Your task to perform on an android device: Empty the shopping cart on amazon. Add "corsair k70" to the cart on amazon Image 0: 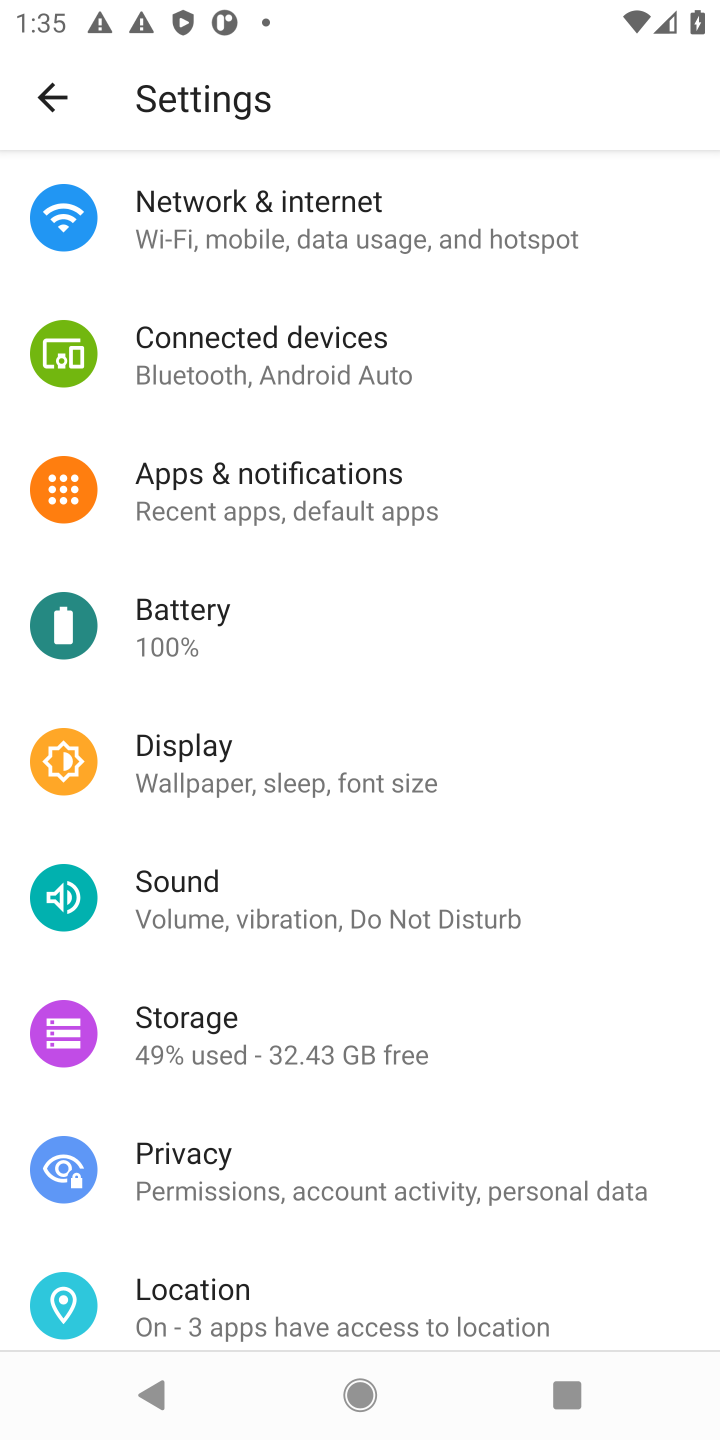
Step 0: press home button
Your task to perform on an android device: Empty the shopping cart on amazon. Add "corsair k70" to the cart on amazon Image 1: 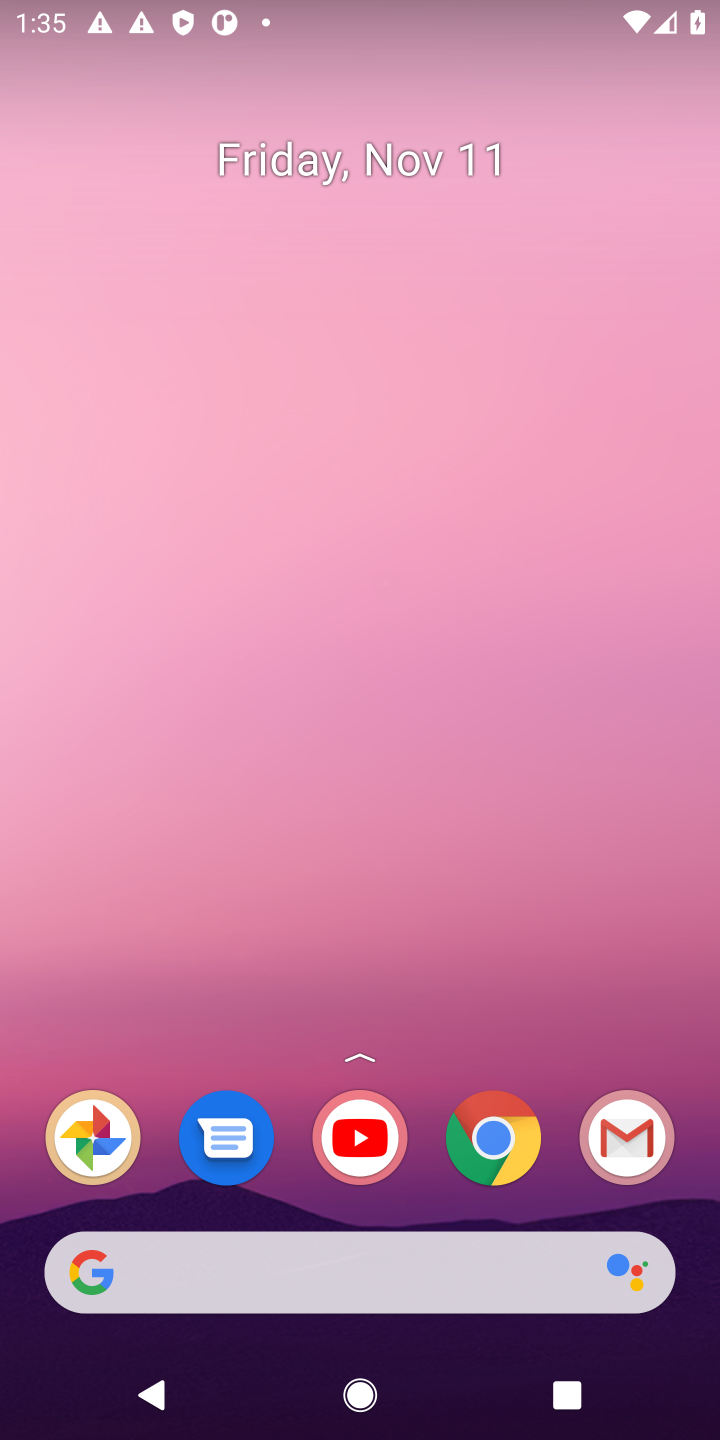
Step 1: click (506, 1140)
Your task to perform on an android device: Empty the shopping cart on amazon. Add "corsair k70" to the cart on amazon Image 2: 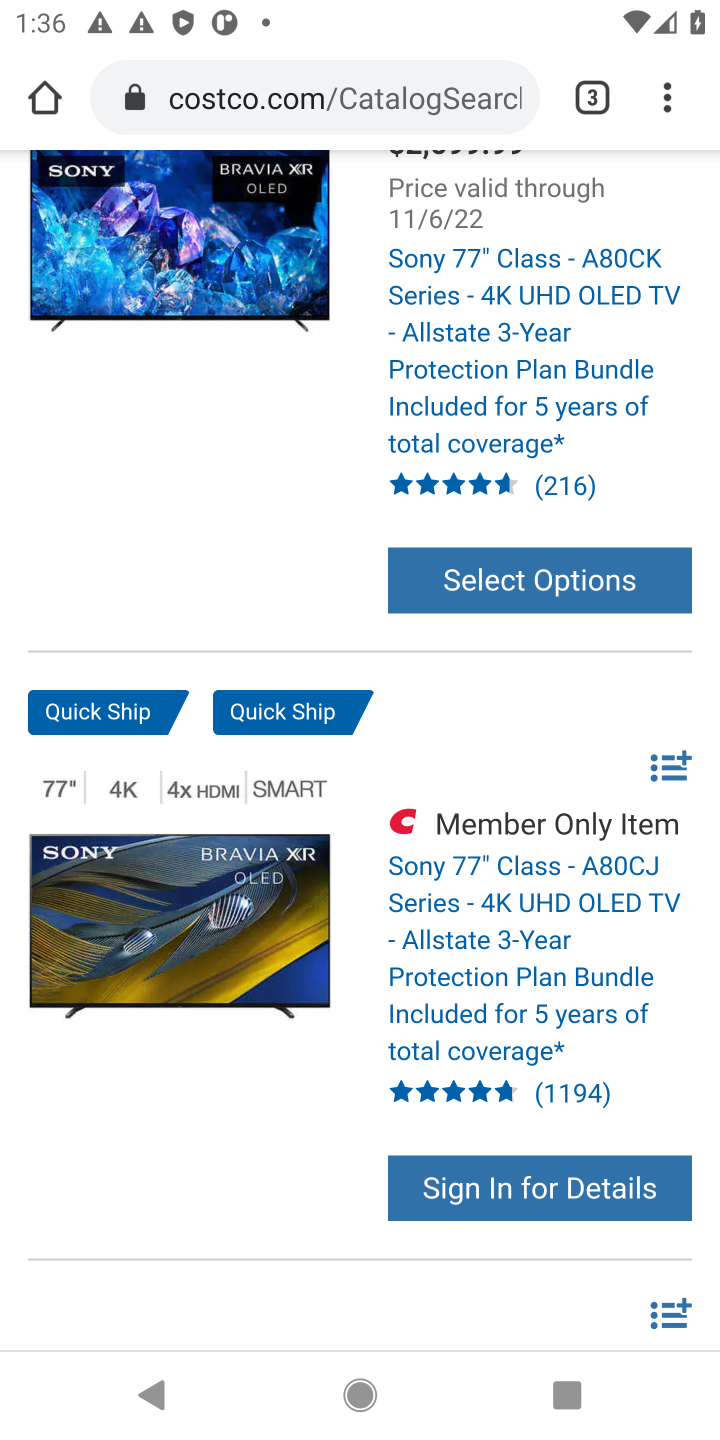
Step 2: click (602, 97)
Your task to perform on an android device: Empty the shopping cart on amazon. Add "corsair k70" to the cart on amazon Image 3: 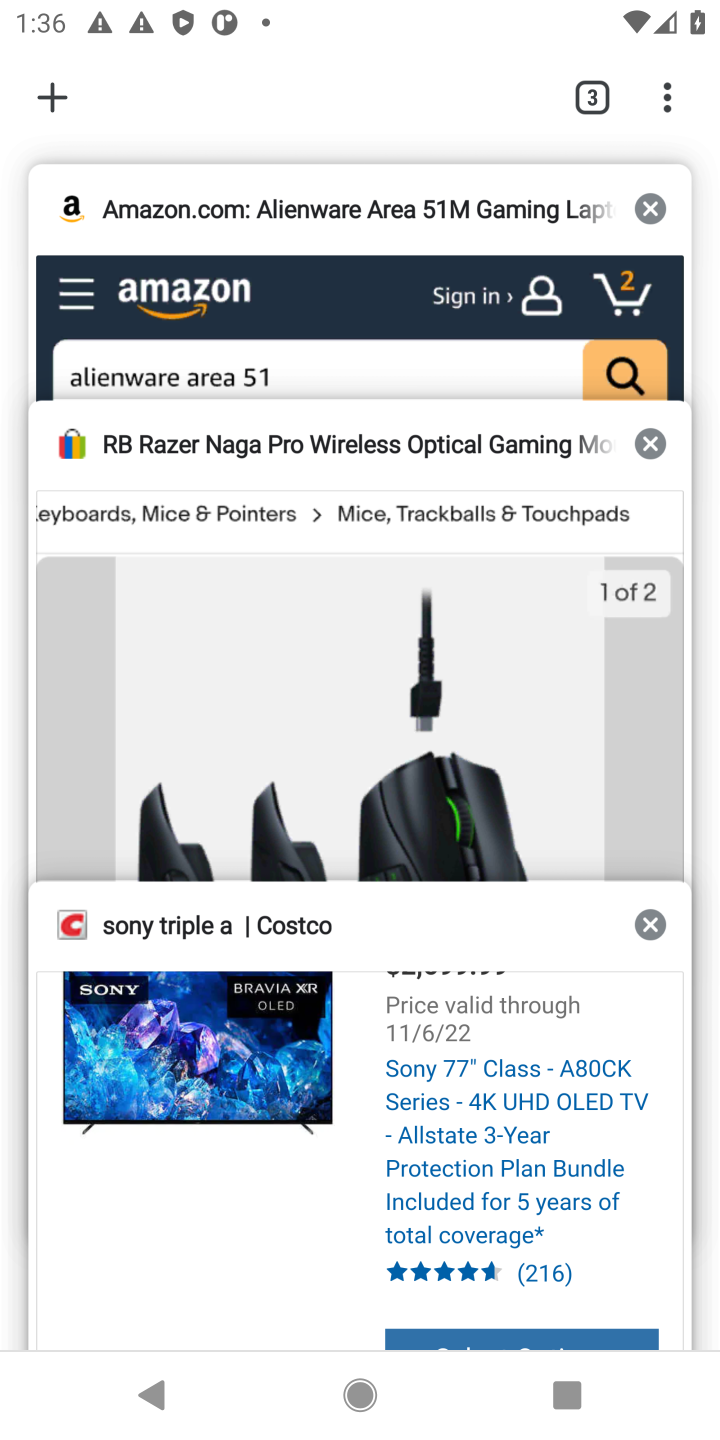
Step 3: click (448, 294)
Your task to perform on an android device: Empty the shopping cart on amazon. Add "corsair k70" to the cart on amazon Image 4: 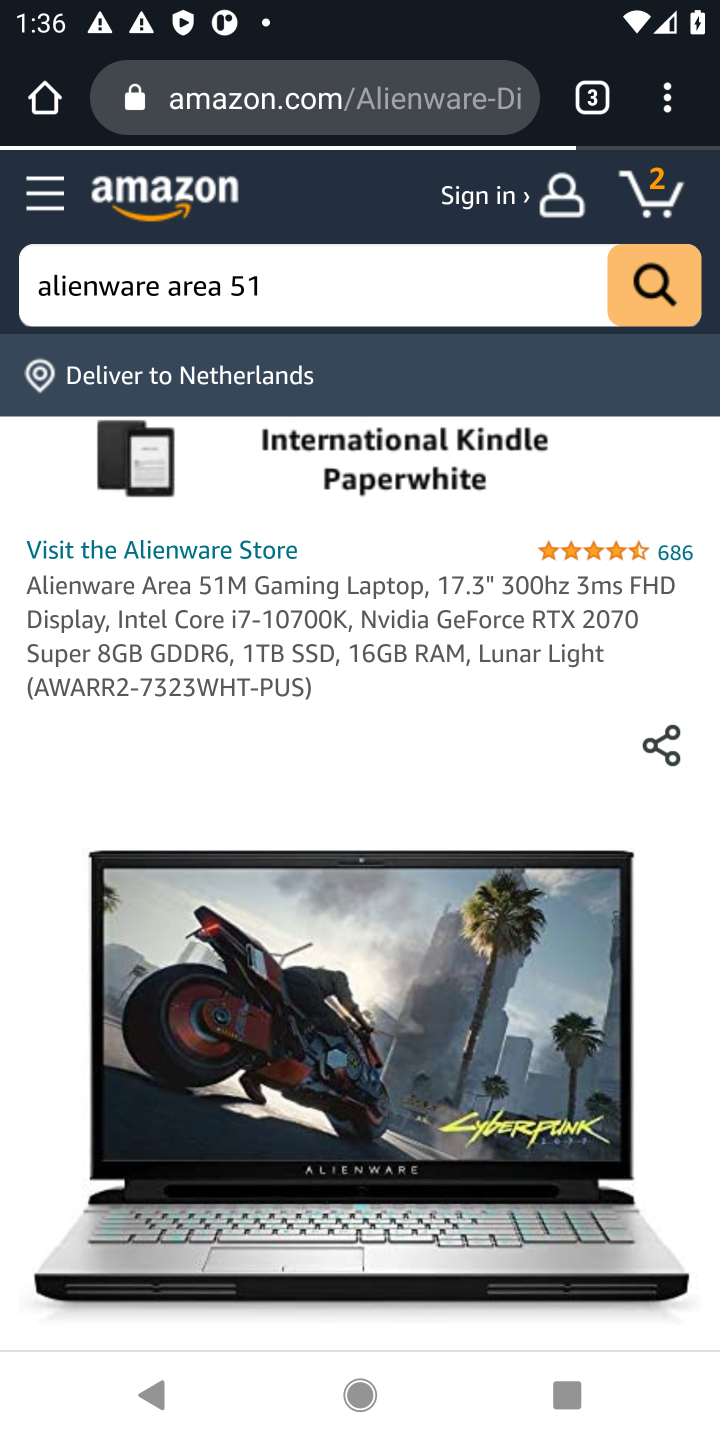
Step 4: click (669, 191)
Your task to perform on an android device: Empty the shopping cart on amazon. Add "corsair k70" to the cart on amazon Image 5: 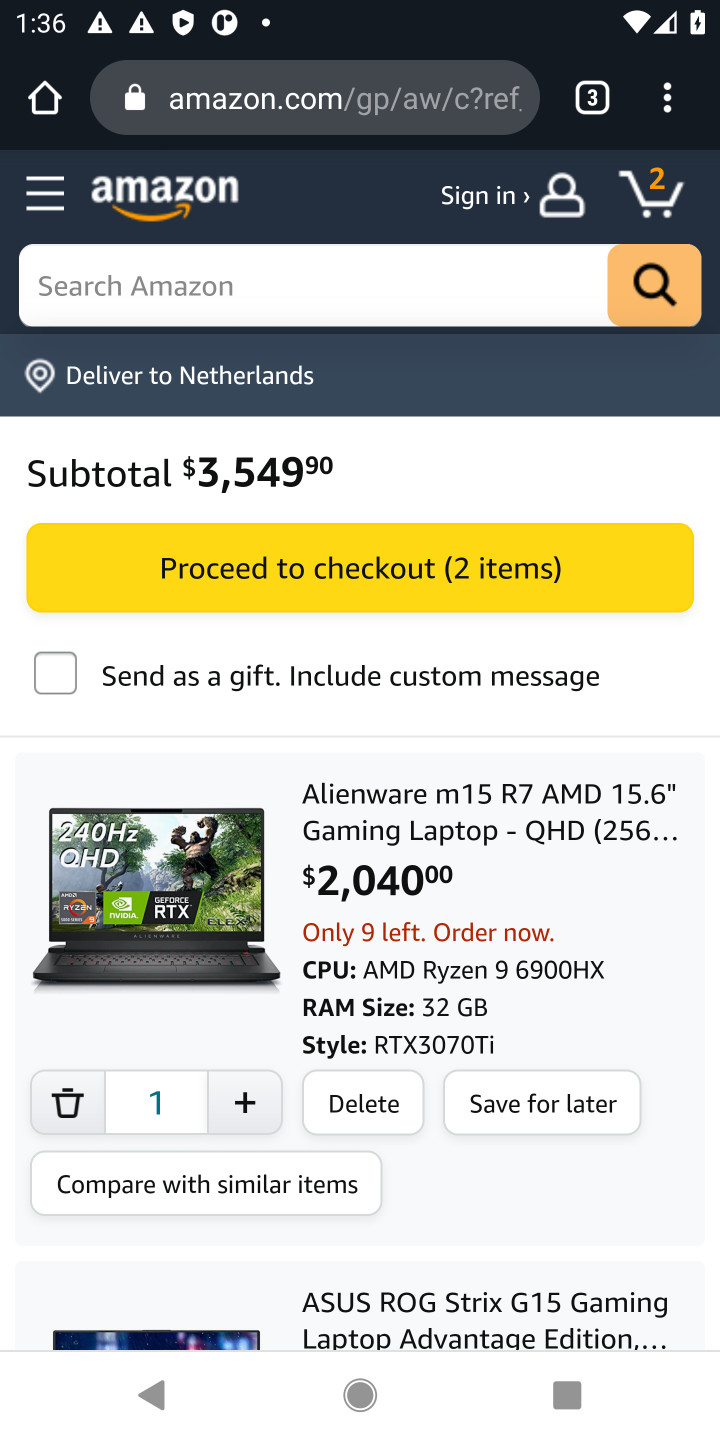
Step 5: click (355, 1094)
Your task to perform on an android device: Empty the shopping cart on amazon. Add "corsair k70" to the cart on amazon Image 6: 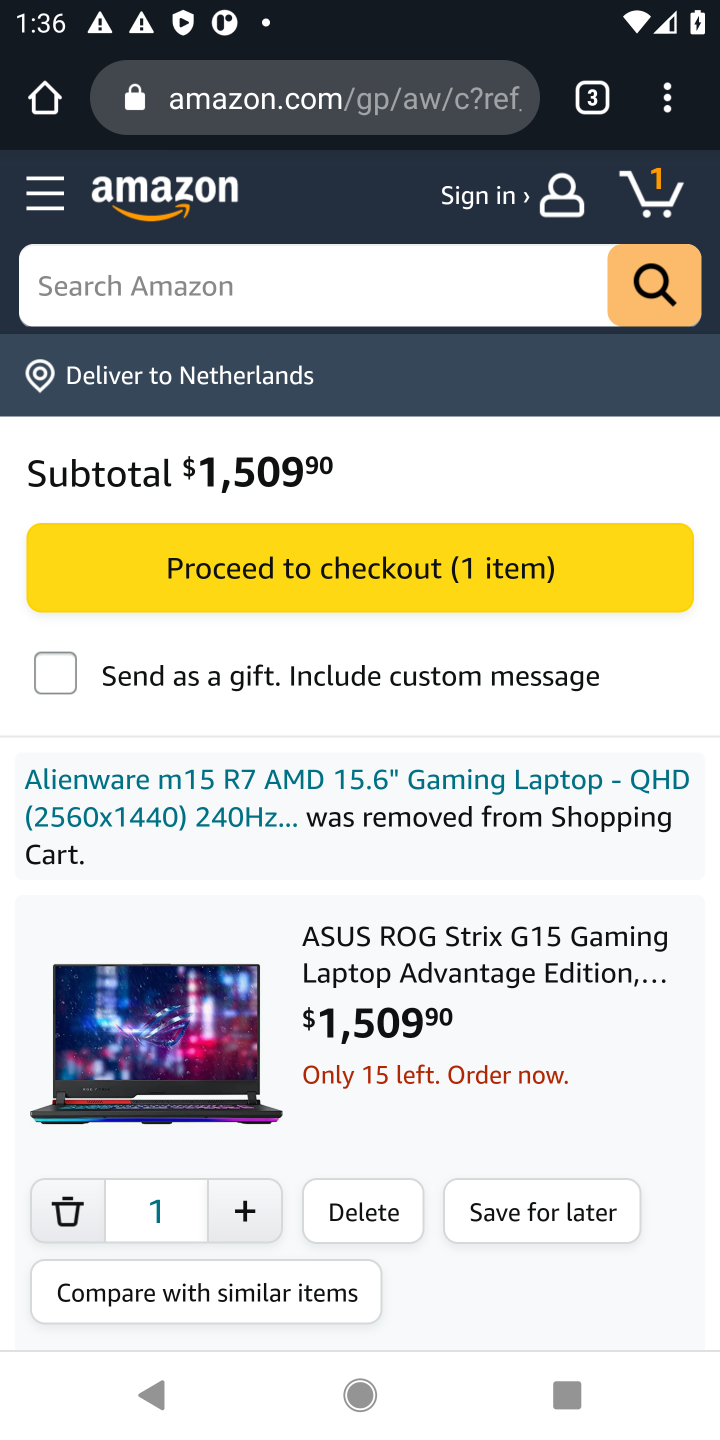
Step 6: click (356, 1198)
Your task to perform on an android device: Empty the shopping cart on amazon. Add "corsair k70" to the cart on amazon Image 7: 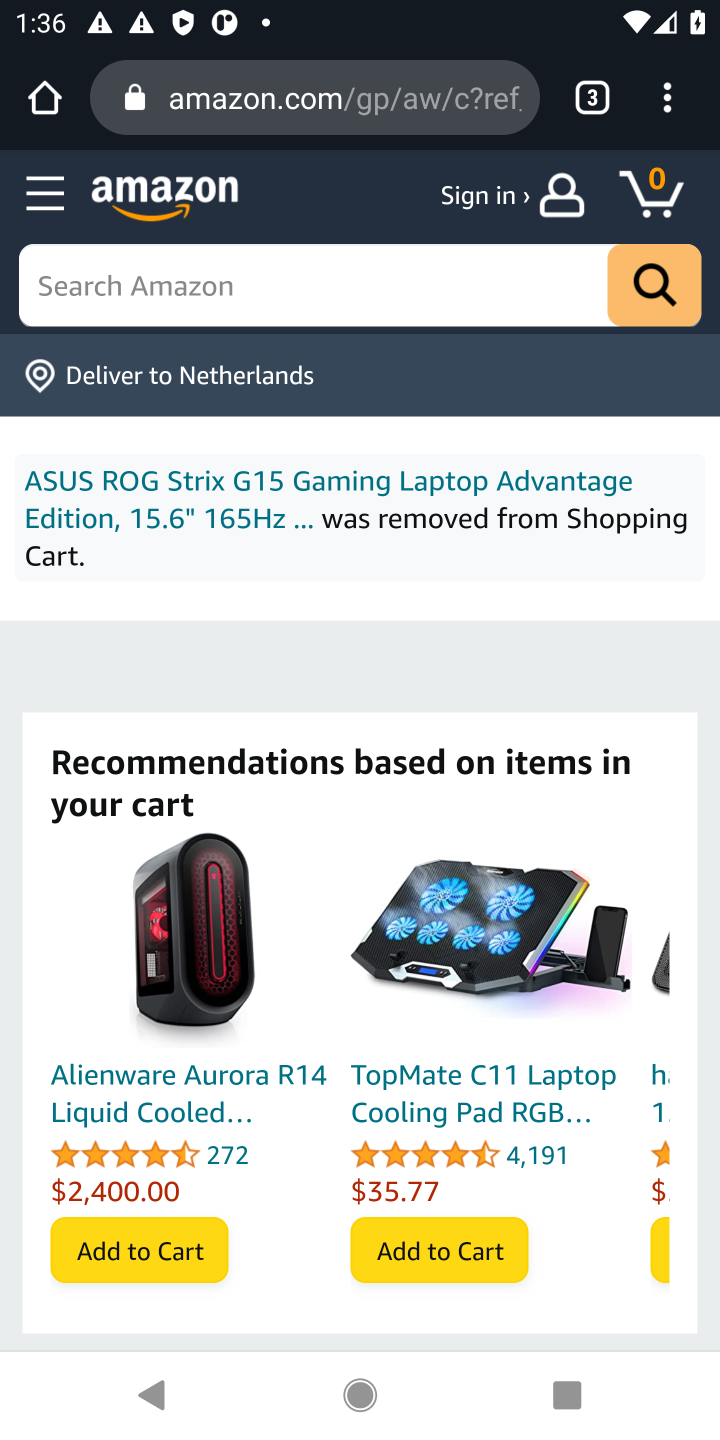
Step 7: click (257, 297)
Your task to perform on an android device: Empty the shopping cart on amazon. Add "corsair k70" to the cart on amazon Image 8: 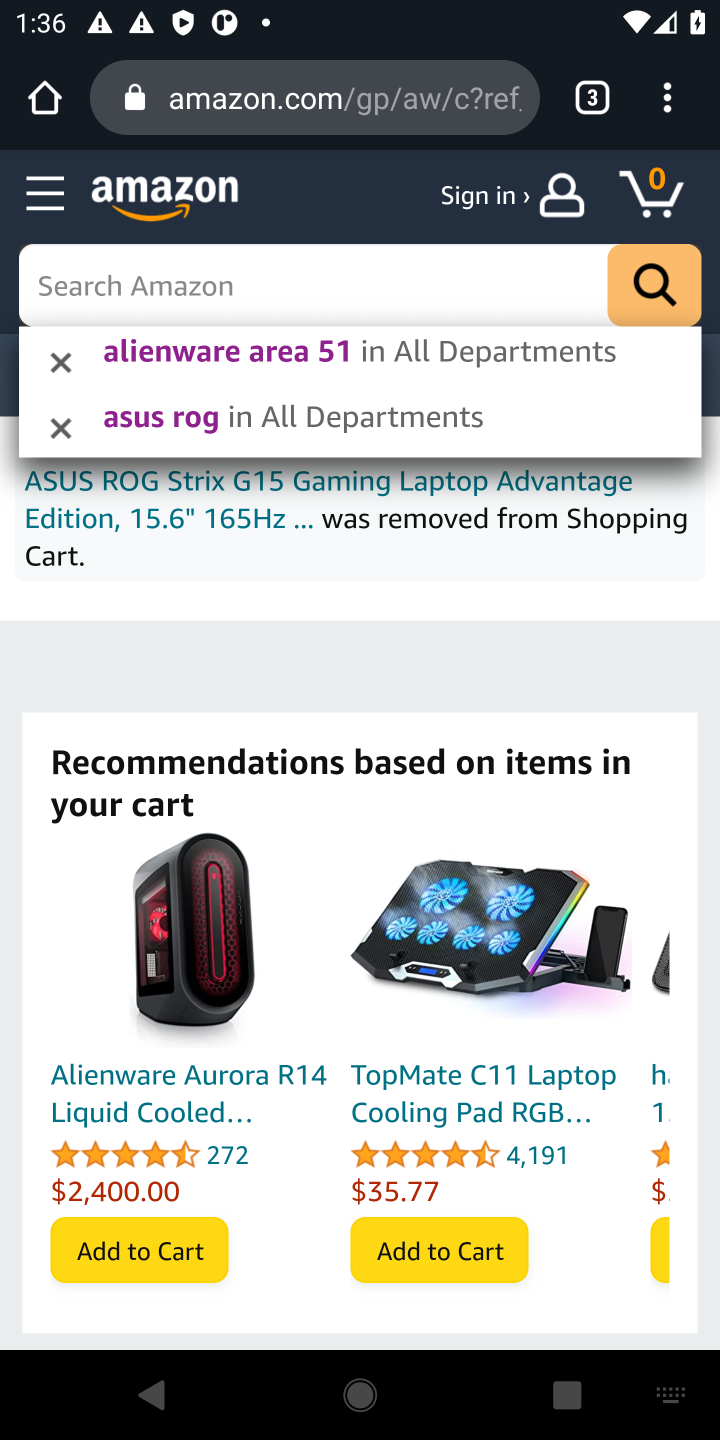
Step 8: type "corsair k70"
Your task to perform on an android device: Empty the shopping cart on amazon. Add "corsair k70" to the cart on amazon Image 9: 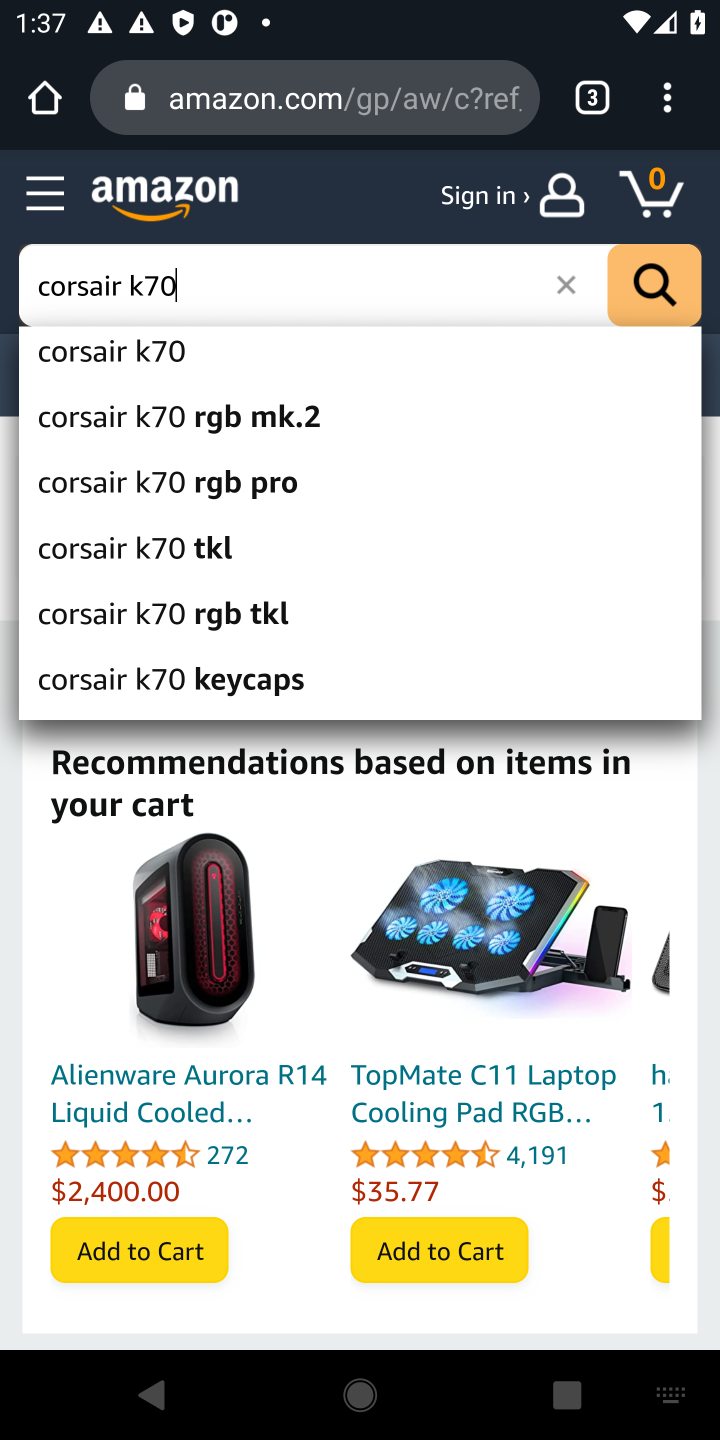
Step 9: click (155, 344)
Your task to perform on an android device: Empty the shopping cart on amazon. Add "corsair k70" to the cart on amazon Image 10: 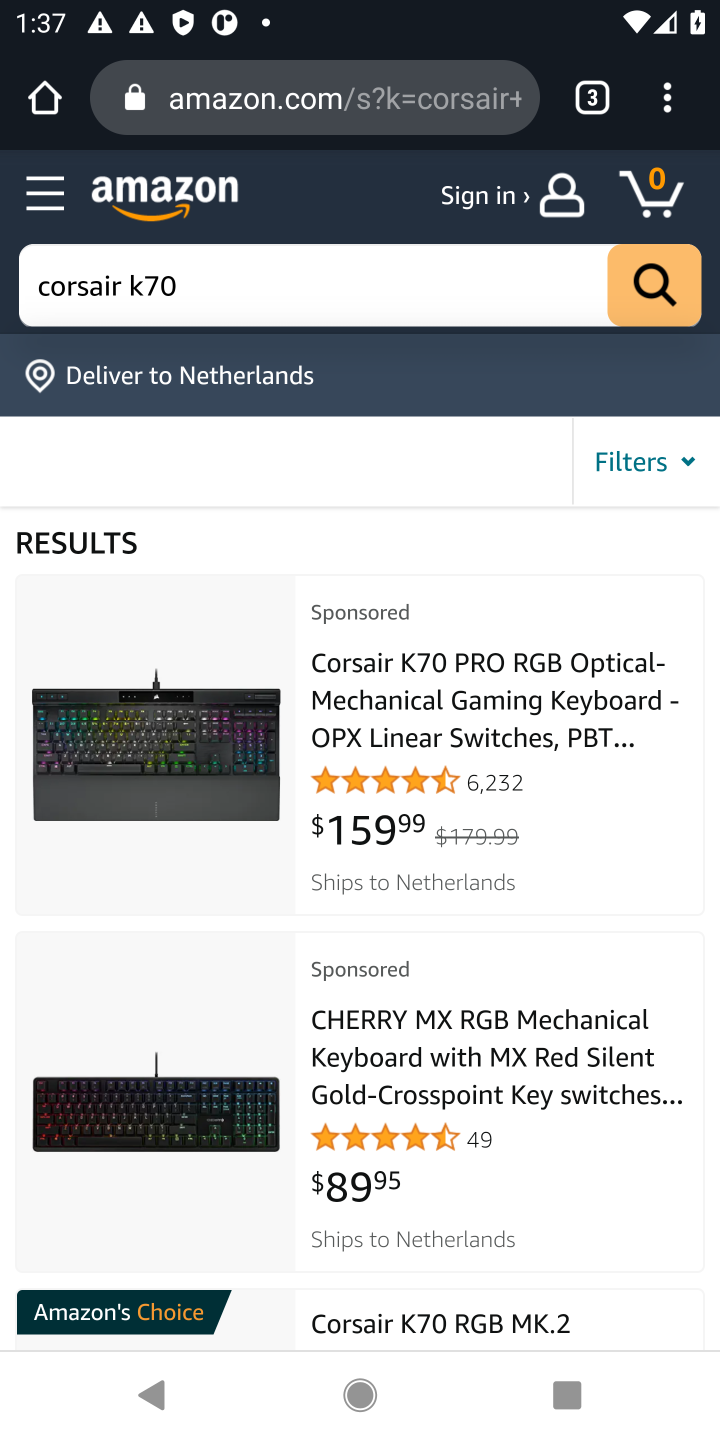
Step 10: click (476, 666)
Your task to perform on an android device: Empty the shopping cart on amazon. Add "corsair k70" to the cart on amazon Image 11: 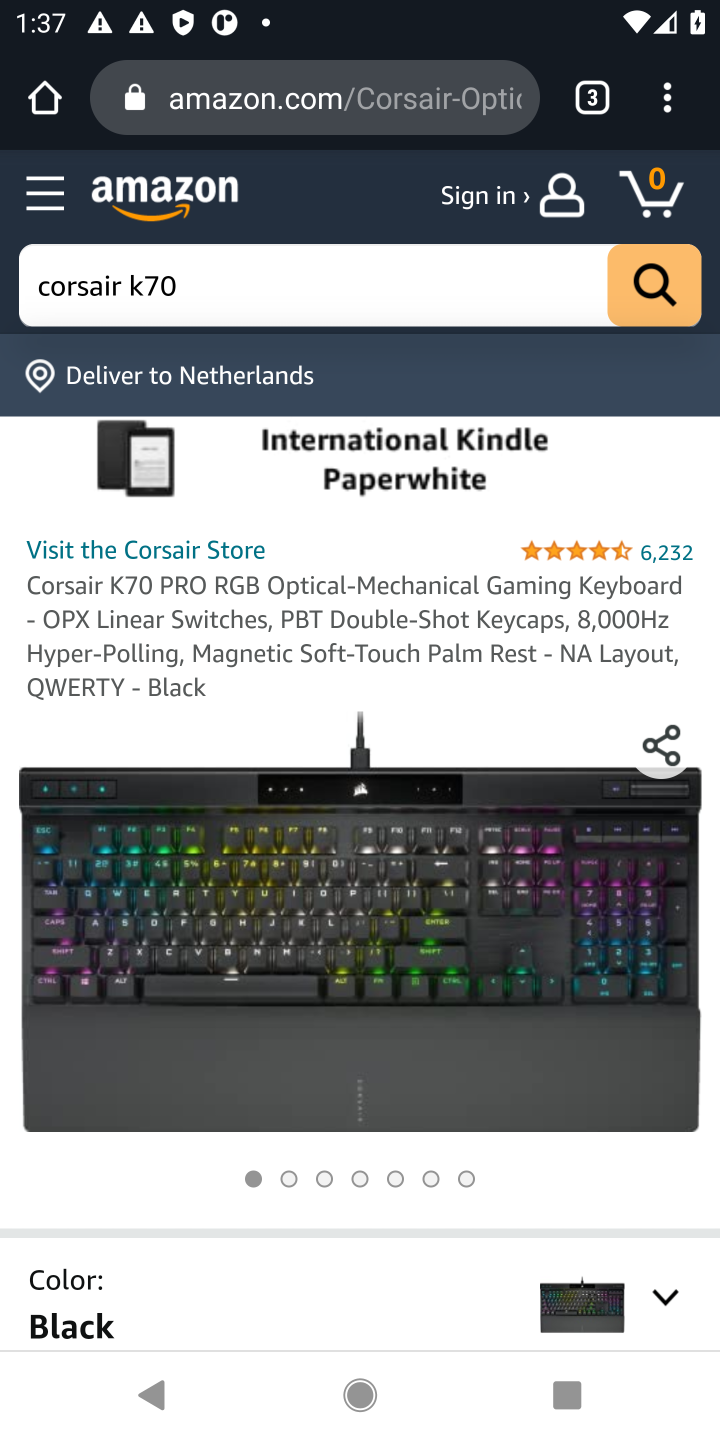
Step 11: drag from (459, 876) to (522, 495)
Your task to perform on an android device: Empty the shopping cart on amazon. Add "corsair k70" to the cart on amazon Image 12: 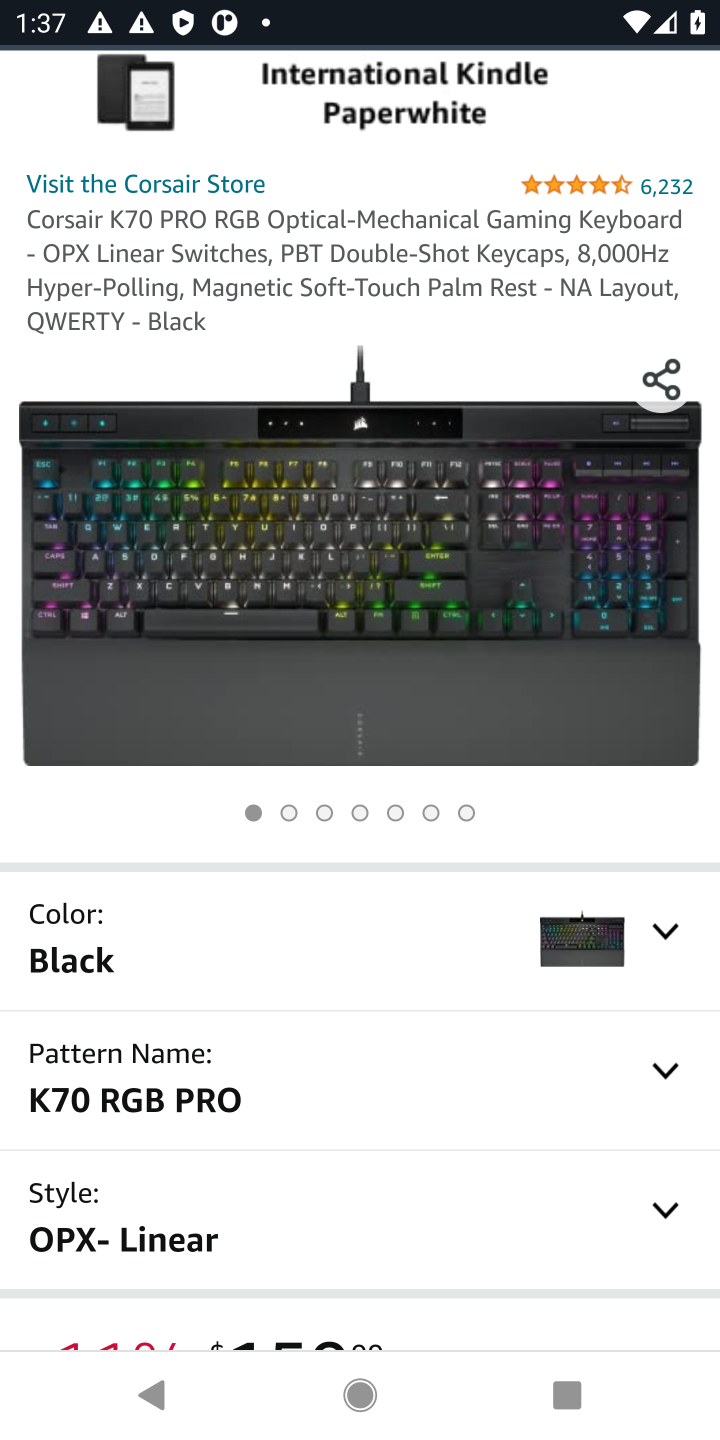
Step 12: drag from (323, 975) to (343, 649)
Your task to perform on an android device: Empty the shopping cart on amazon. Add "corsair k70" to the cart on amazon Image 13: 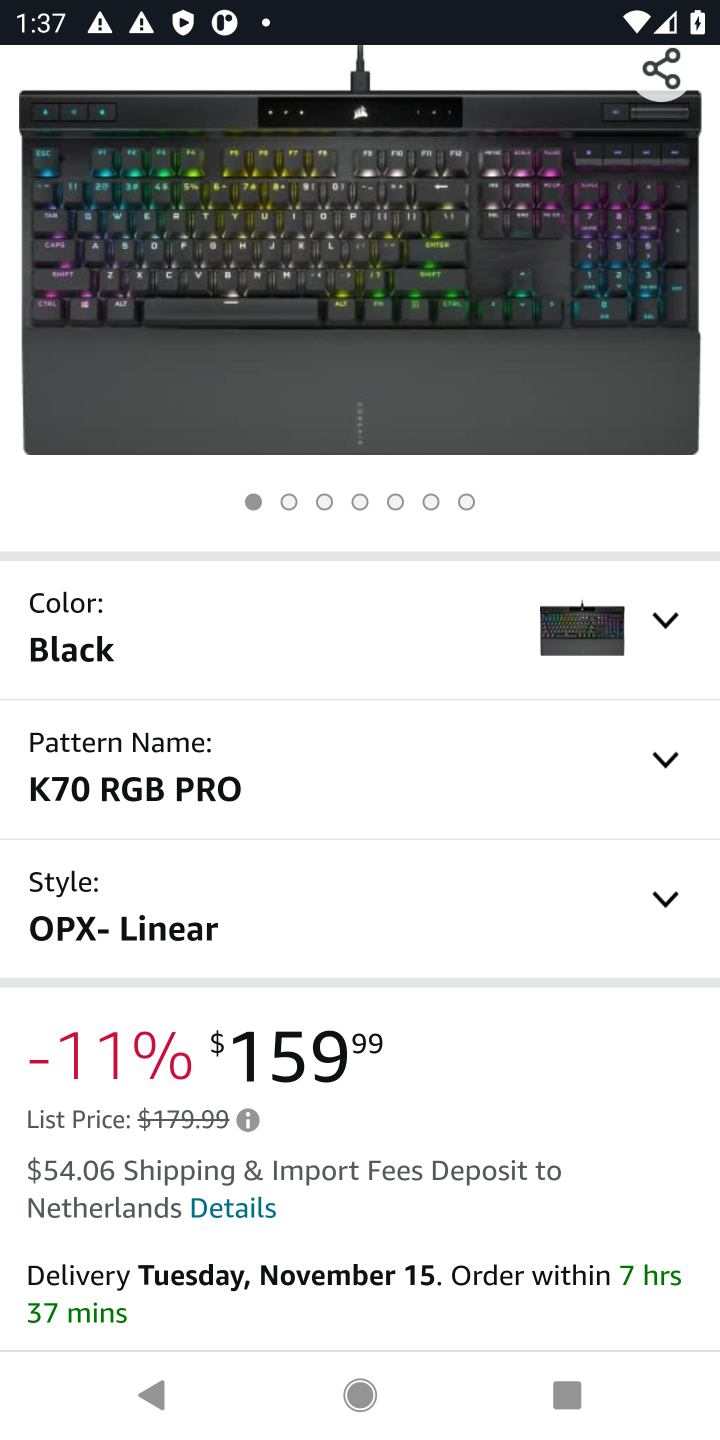
Step 13: drag from (490, 1070) to (537, 470)
Your task to perform on an android device: Empty the shopping cart on amazon. Add "corsair k70" to the cart on amazon Image 14: 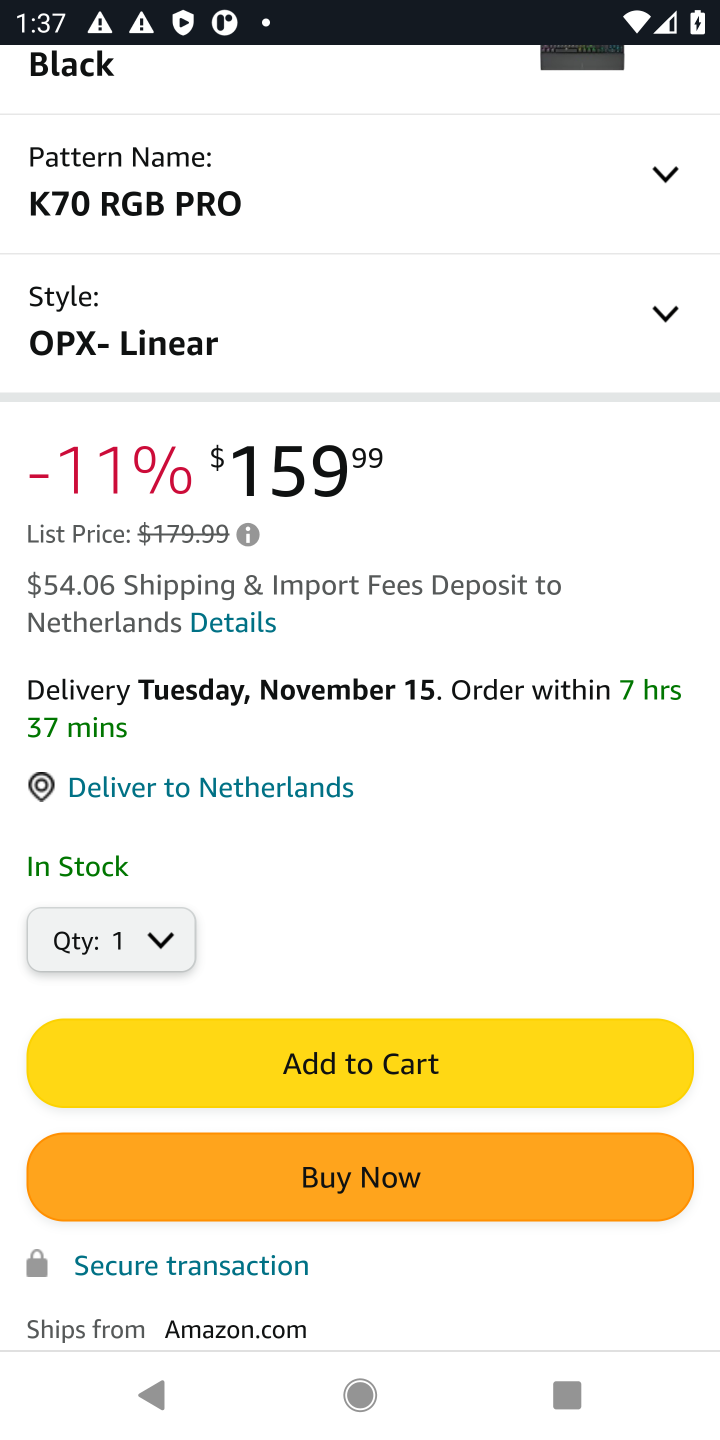
Step 14: click (415, 1064)
Your task to perform on an android device: Empty the shopping cart on amazon. Add "corsair k70" to the cart on amazon Image 15: 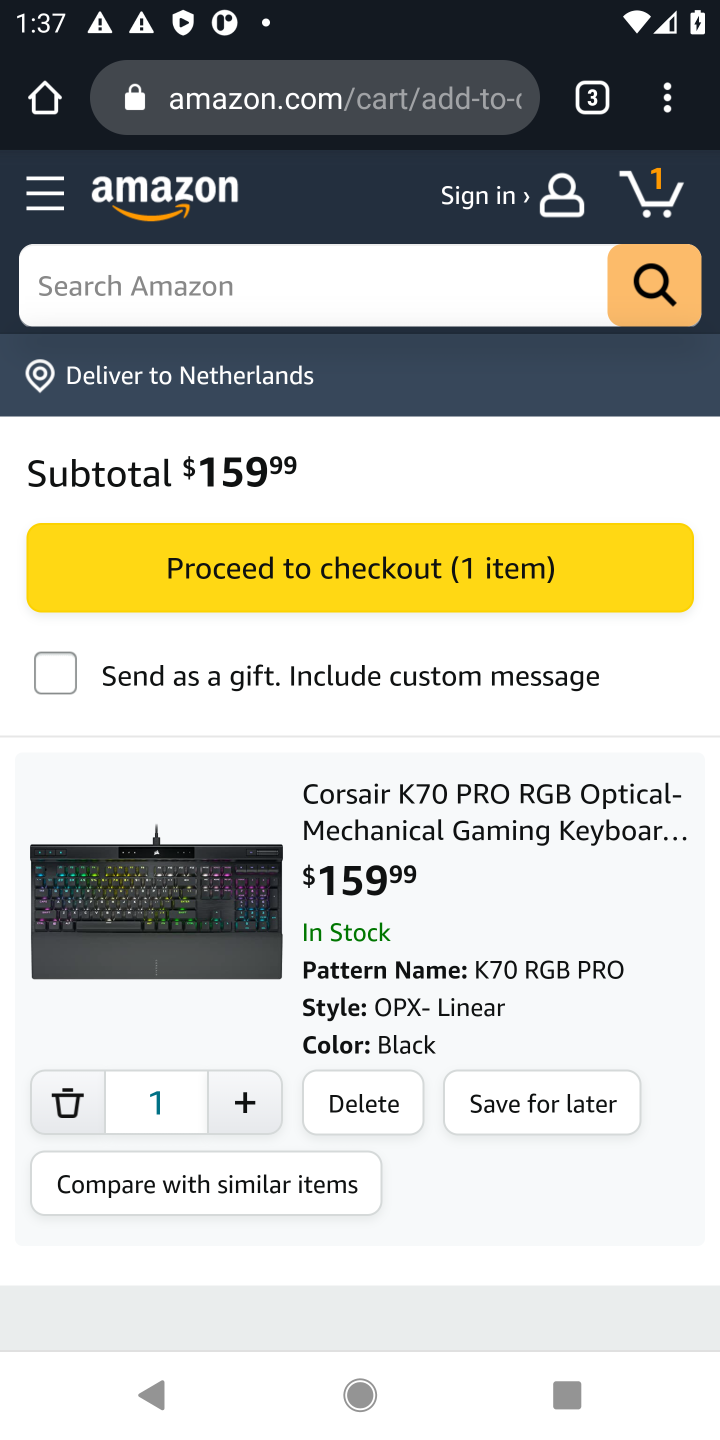
Step 15: task complete